Your task to perform on an android device: Do I have any events this weekend? Image 0: 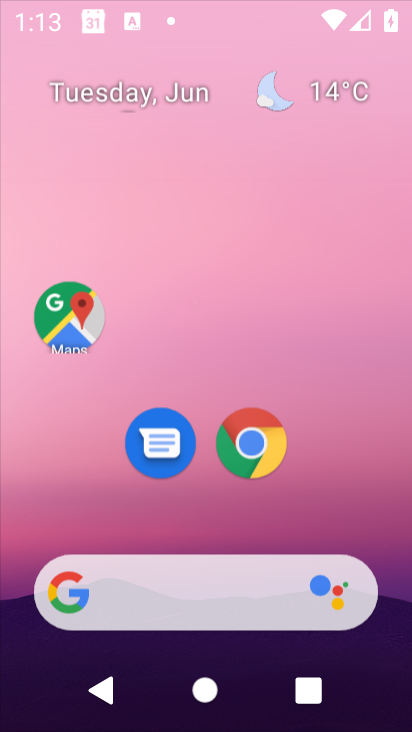
Step 0: press home button
Your task to perform on an android device: Do I have any events this weekend? Image 1: 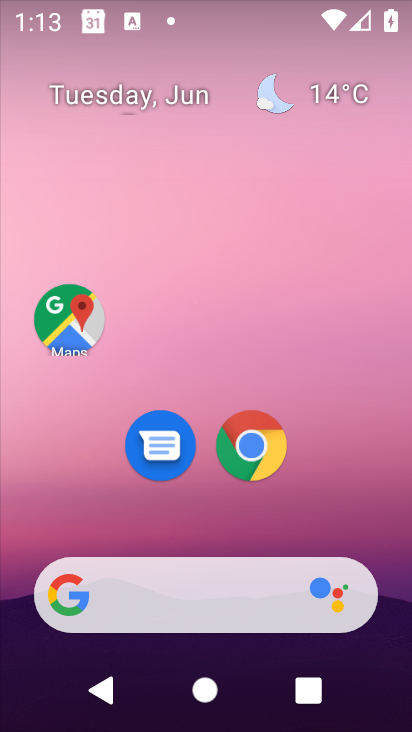
Step 1: click (134, 95)
Your task to perform on an android device: Do I have any events this weekend? Image 2: 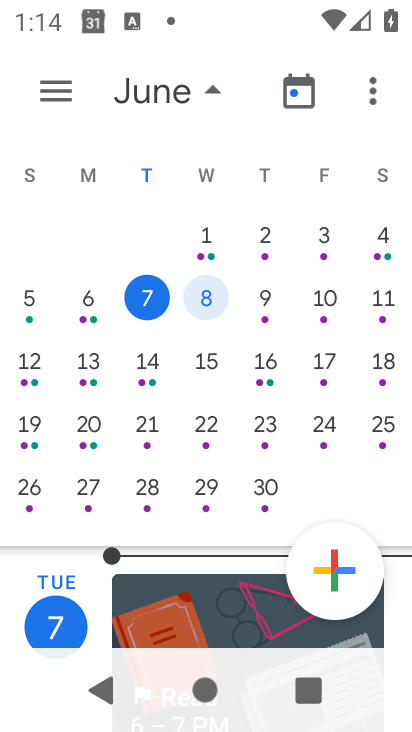
Step 2: click (382, 311)
Your task to perform on an android device: Do I have any events this weekend? Image 3: 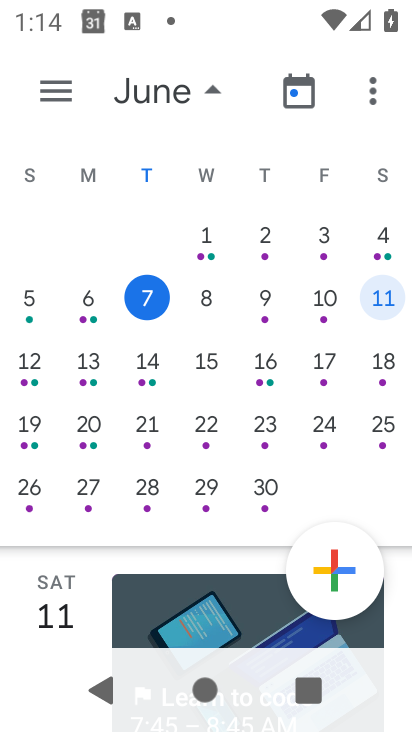
Step 3: task complete